Your task to perform on an android device: Open Youtube and go to "Your channel" Image 0: 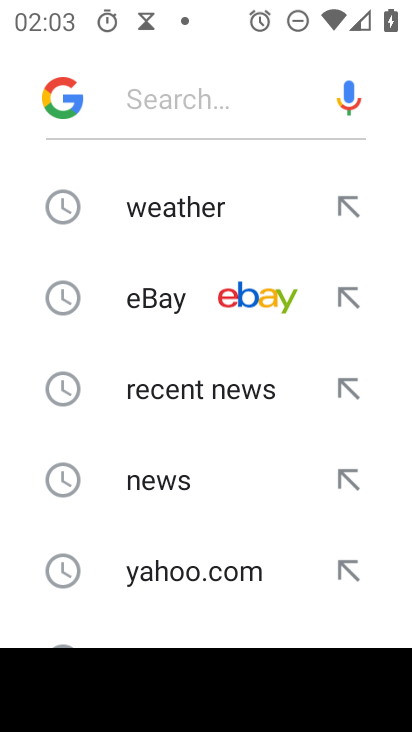
Step 0: press home button
Your task to perform on an android device: Open Youtube and go to "Your channel" Image 1: 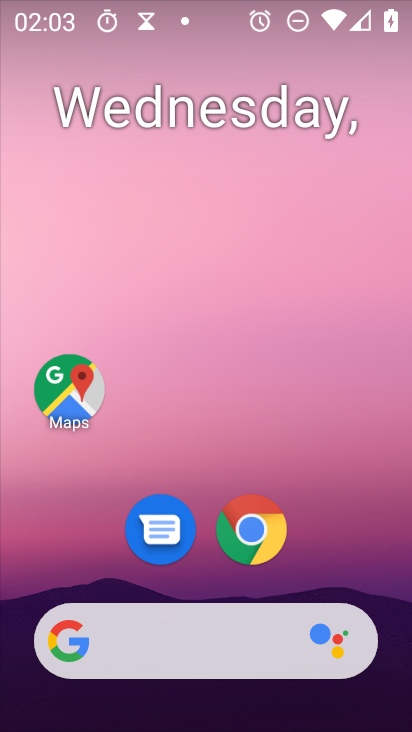
Step 1: drag from (262, 638) to (260, 127)
Your task to perform on an android device: Open Youtube and go to "Your channel" Image 2: 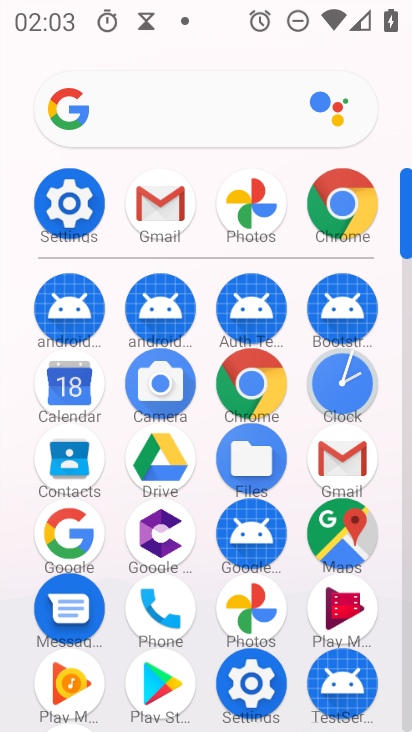
Step 2: drag from (303, 650) to (303, 229)
Your task to perform on an android device: Open Youtube and go to "Your channel" Image 3: 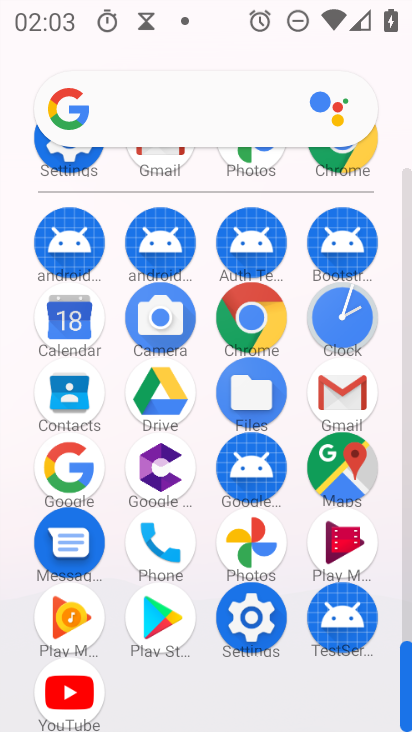
Step 3: click (88, 680)
Your task to perform on an android device: Open Youtube and go to "Your channel" Image 4: 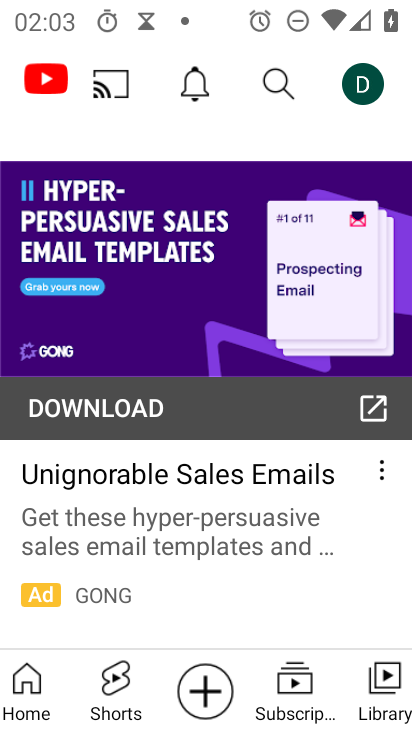
Step 4: click (379, 80)
Your task to perform on an android device: Open Youtube and go to "Your channel" Image 5: 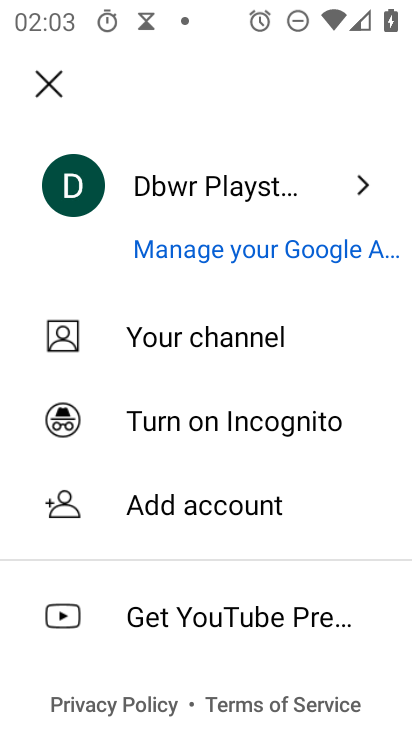
Step 5: click (250, 347)
Your task to perform on an android device: Open Youtube and go to "Your channel" Image 6: 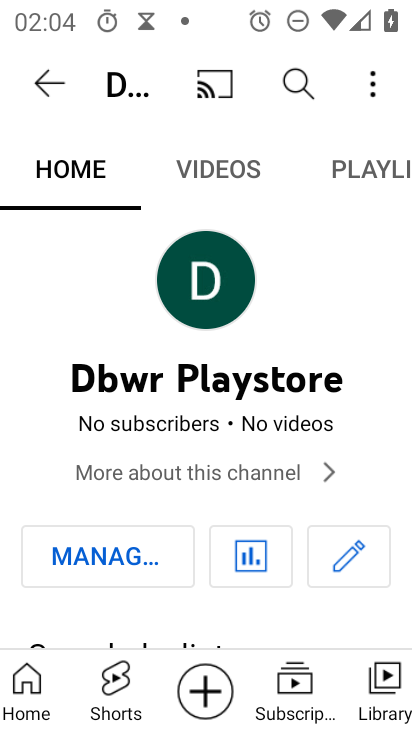
Step 6: task complete